Your task to perform on an android device: toggle sleep mode Image 0: 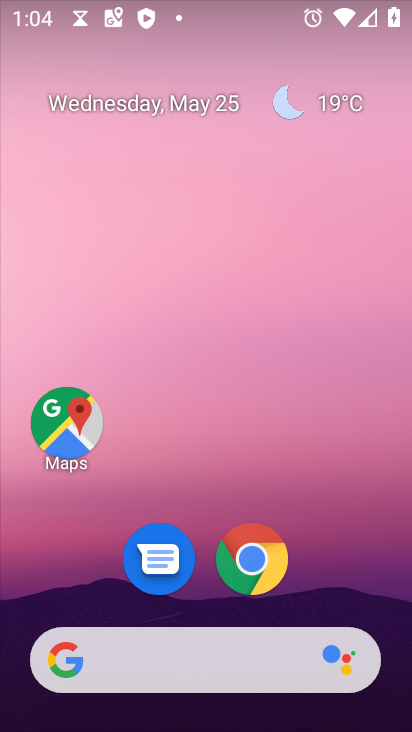
Step 0: drag from (391, 564) to (306, 31)
Your task to perform on an android device: toggle sleep mode Image 1: 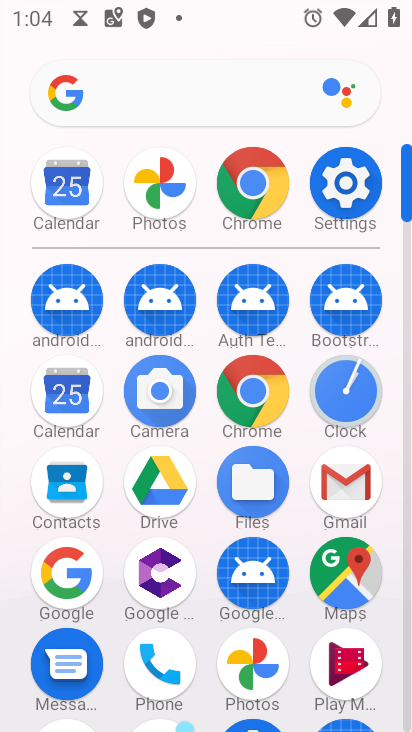
Step 1: click (363, 405)
Your task to perform on an android device: toggle sleep mode Image 2: 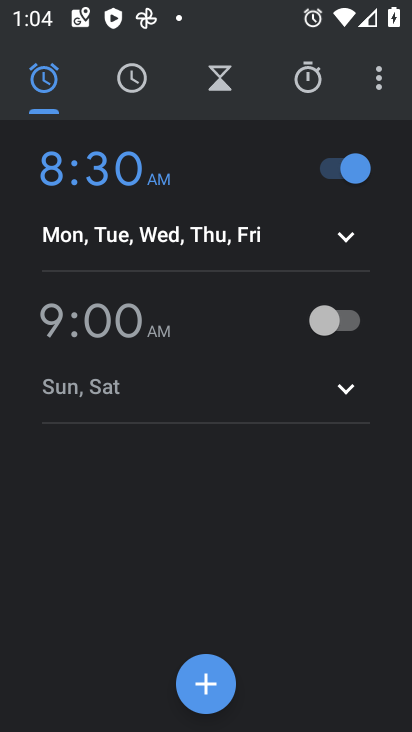
Step 2: press home button
Your task to perform on an android device: toggle sleep mode Image 3: 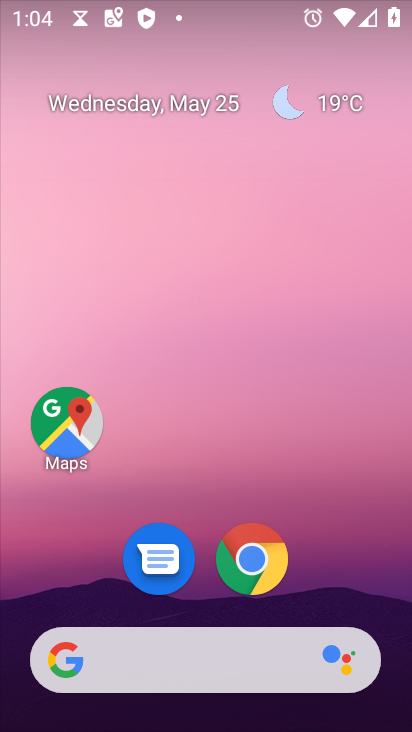
Step 3: drag from (356, 576) to (372, 32)
Your task to perform on an android device: toggle sleep mode Image 4: 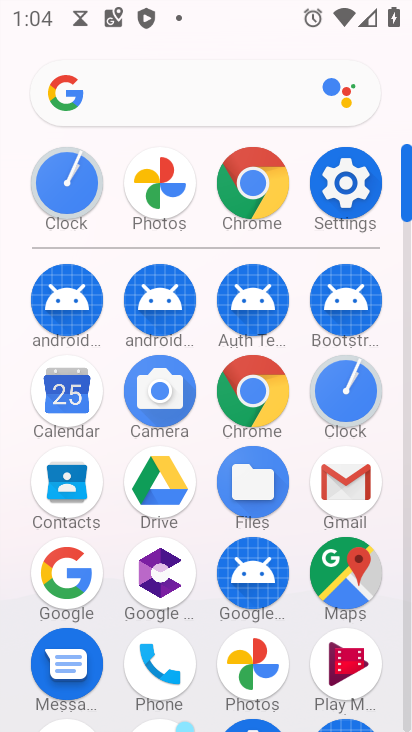
Step 4: click (346, 196)
Your task to perform on an android device: toggle sleep mode Image 5: 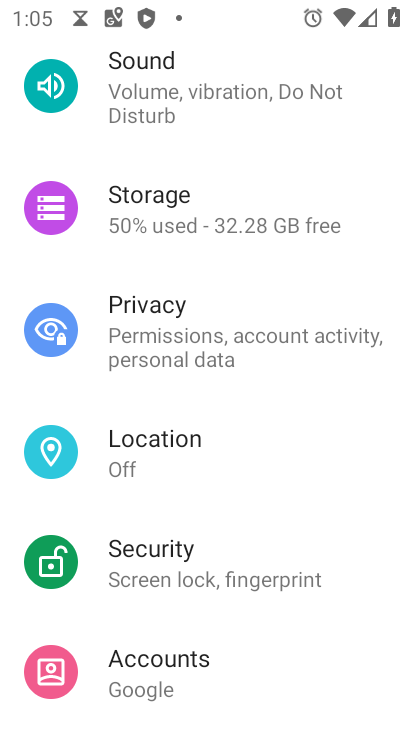
Step 5: drag from (208, 219) to (308, 670)
Your task to perform on an android device: toggle sleep mode Image 6: 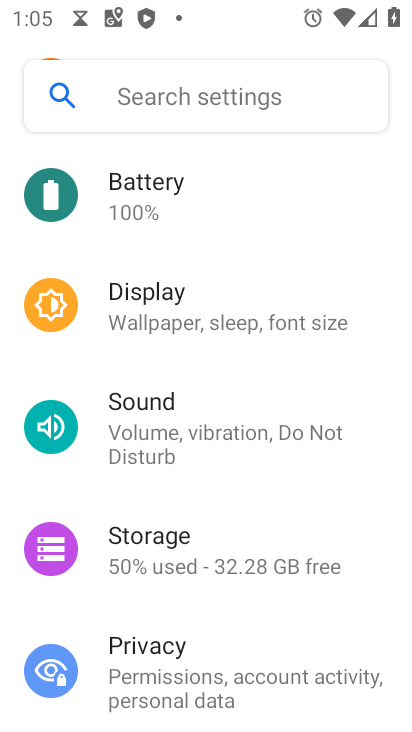
Step 6: drag from (221, 221) to (281, 641)
Your task to perform on an android device: toggle sleep mode Image 7: 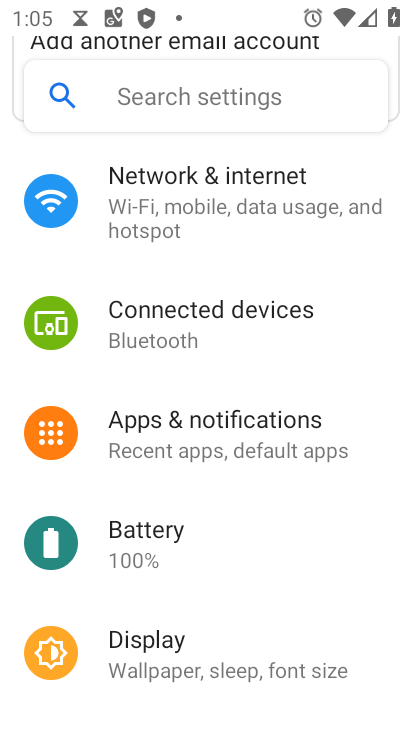
Step 7: drag from (224, 239) to (326, 631)
Your task to perform on an android device: toggle sleep mode Image 8: 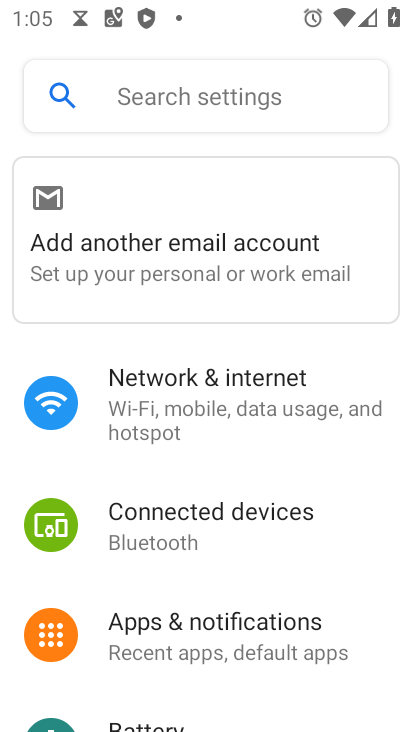
Step 8: drag from (279, 671) to (198, 150)
Your task to perform on an android device: toggle sleep mode Image 9: 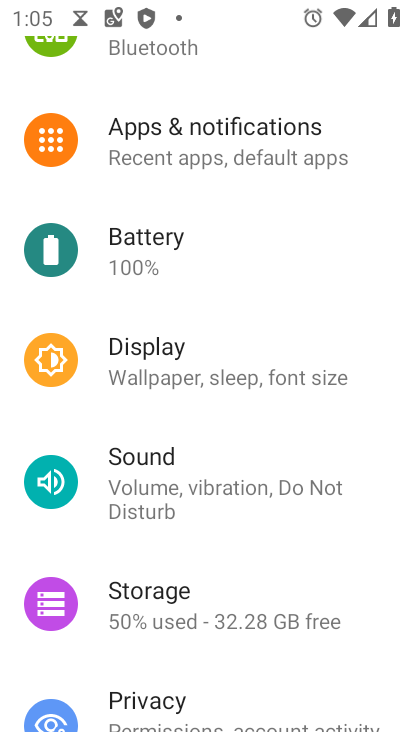
Step 9: drag from (259, 615) to (277, 181)
Your task to perform on an android device: toggle sleep mode Image 10: 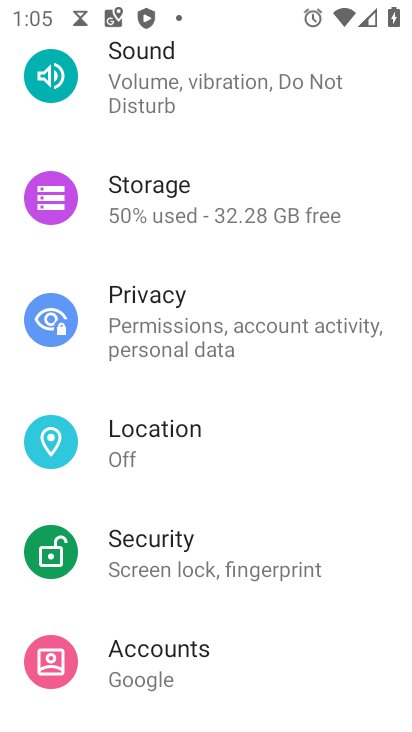
Step 10: drag from (278, 101) to (243, 606)
Your task to perform on an android device: toggle sleep mode Image 11: 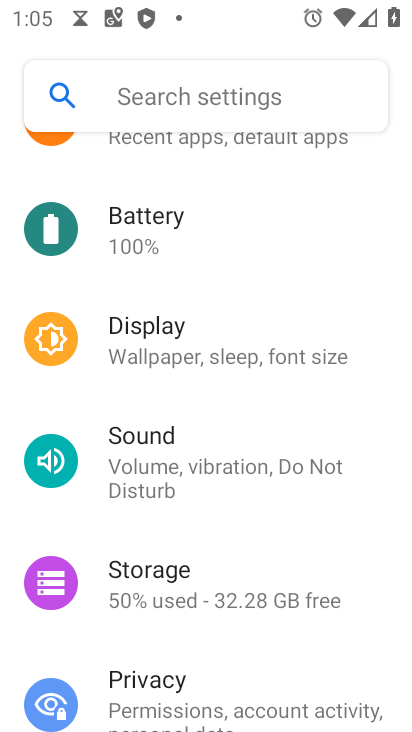
Step 11: click (183, 348)
Your task to perform on an android device: toggle sleep mode Image 12: 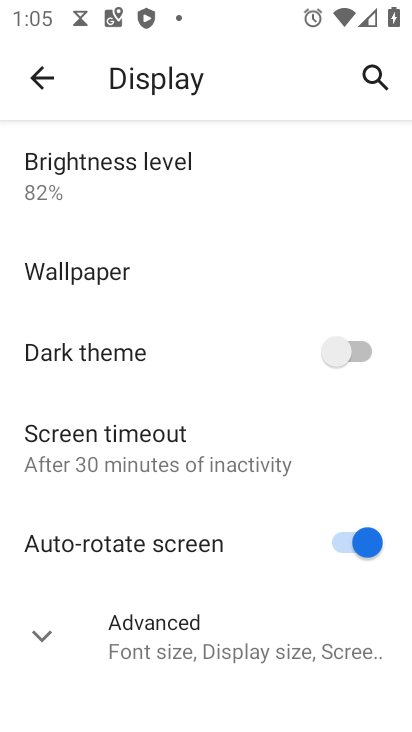
Step 12: click (120, 445)
Your task to perform on an android device: toggle sleep mode Image 13: 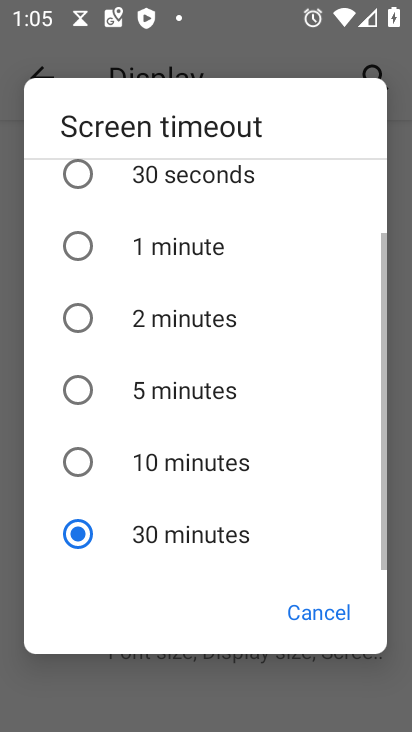
Step 13: click (98, 393)
Your task to perform on an android device: toggle sleep mode Image 14: 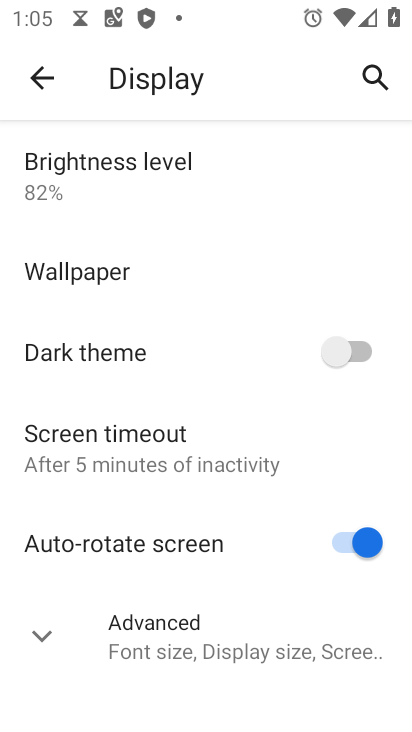
Step 14: task complete